Your task to perform on an android device: turn off notifications settings in the gmail app Image 0: 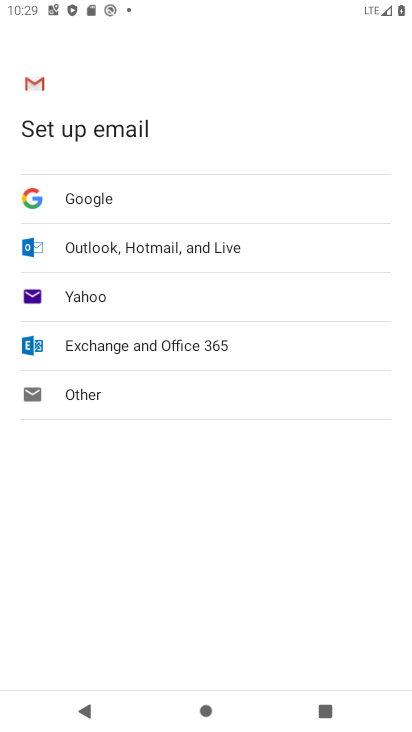
Step 0: press home button
Your task to perform on an android device: turn off notifications settings in the gmail app Image 1: 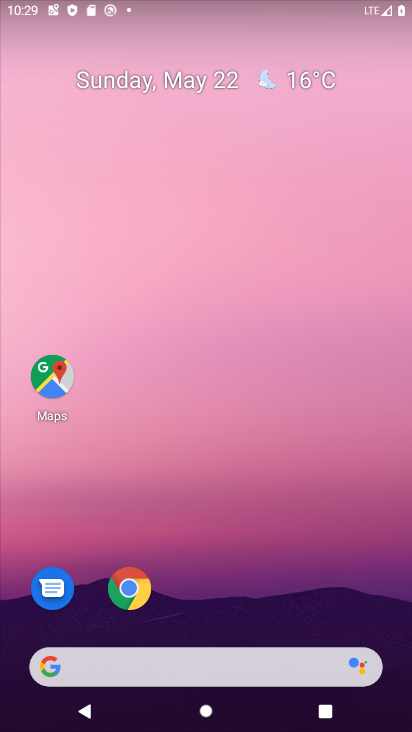
Step 1: drag from (201, 588) to (211, 203)
Your task to perform on an android device: turn off notifications settings in the gmail app Image 2: 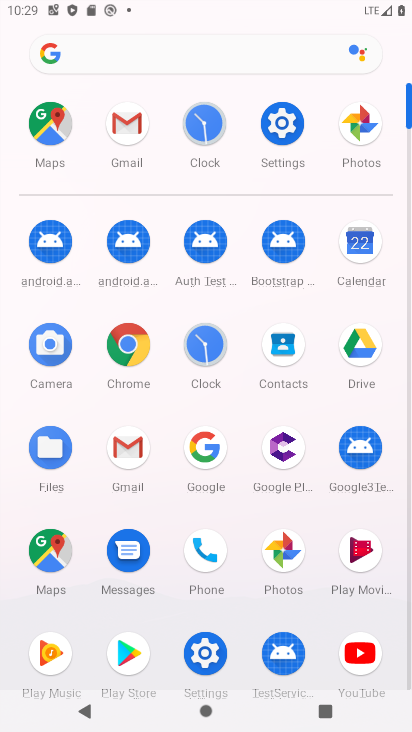
Step 2: click (117, 135)
Your task to perform on an android device: turn off notifications settings in the gmail app Image 3: 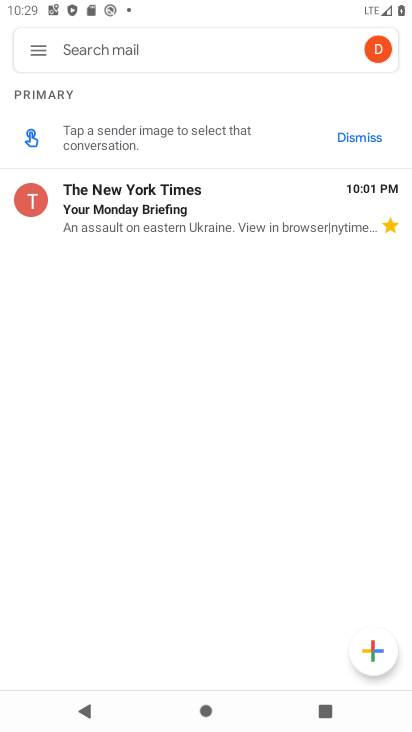
Step 3: click (42, 44)
Your task to perform on an android device: turn off notifications settings in the gmail app Image 4: 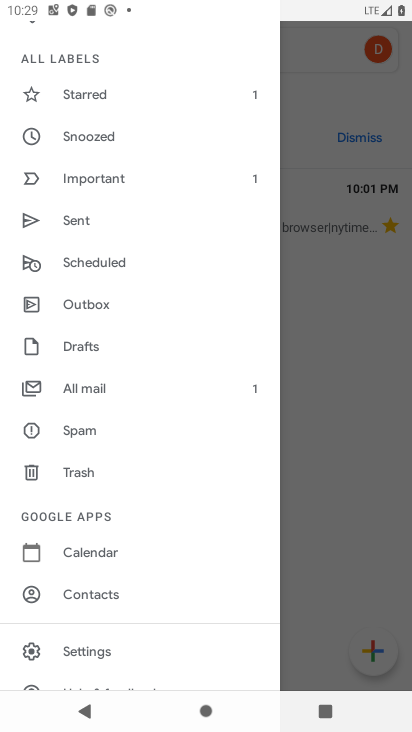
Step 4: drag from (149, 668) to (141, 510)
Your task to perform on an android device: turn off notifications settings in the gmail app Image 5: 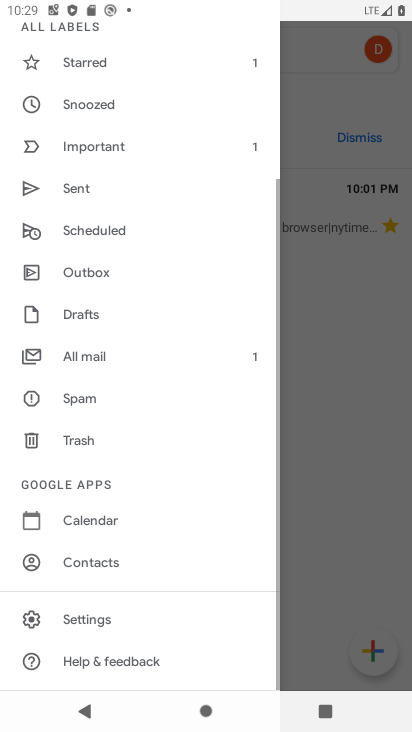
Step 5: click (109, 616)
Your task to perform on an android device: turn off notifications settings in the gmail app Image 6: 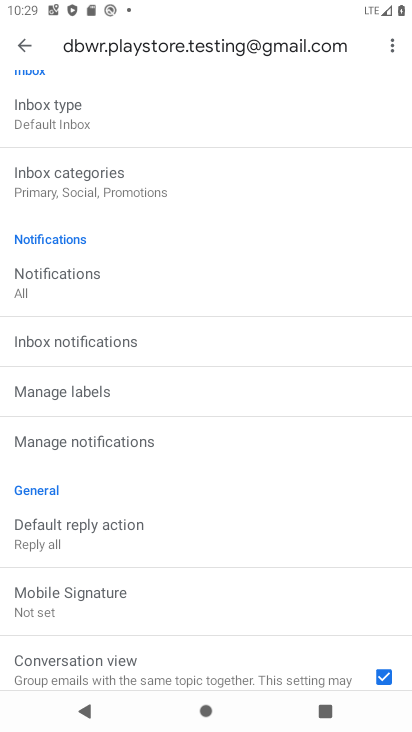
Step 6: click (113, 430)
Your task to perform on an android device: turn off notifications settings in the gmail app Image 7: 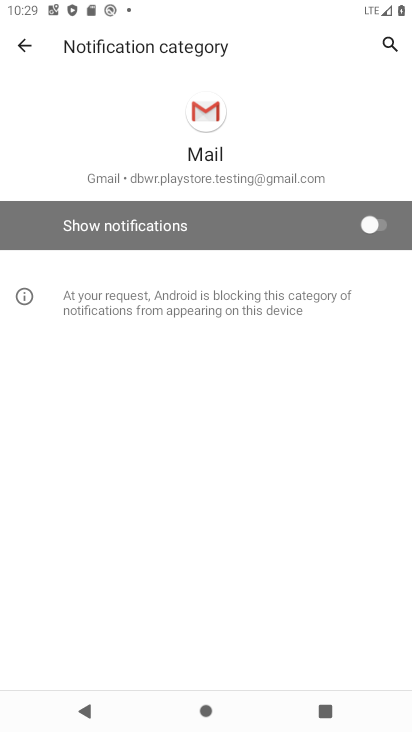
Step 7: task complete